Your task to perform on an android device: Open privacy settings Image 0: 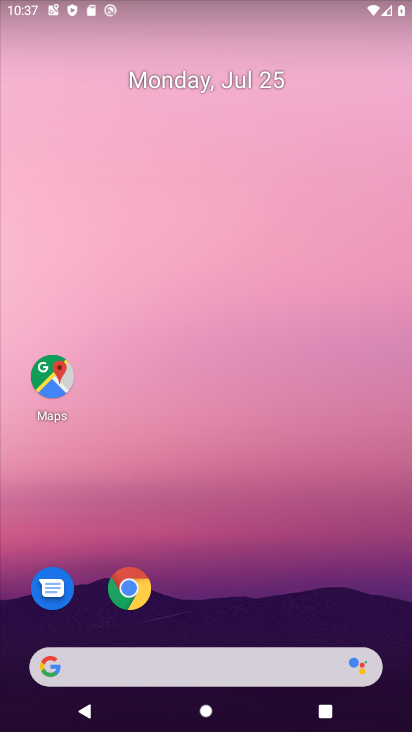
Step 0: drag from (335, 638) to (335, 128)
Your task to perform on an android device: Open privacy settings Image 1: 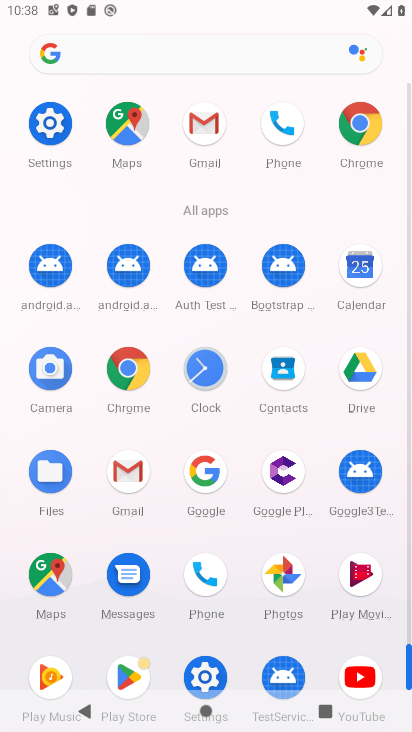
Step 1: click (215, 682)
Your task to perform on an android device: Open privacy settings Image 2: 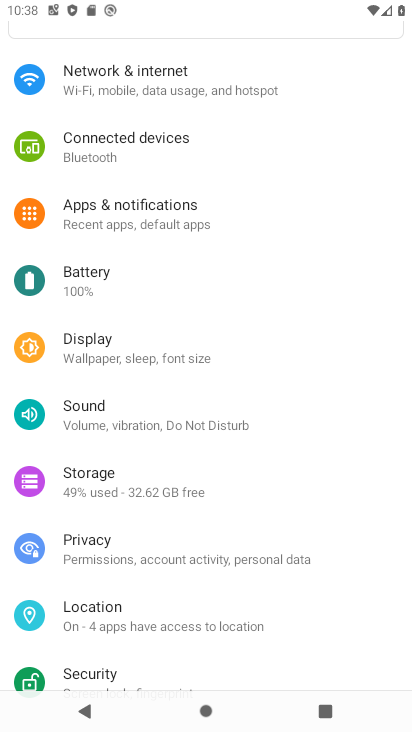
Step 2: click (120, 552)
Your task to perform on an android device: Open privacy settings Image 3: 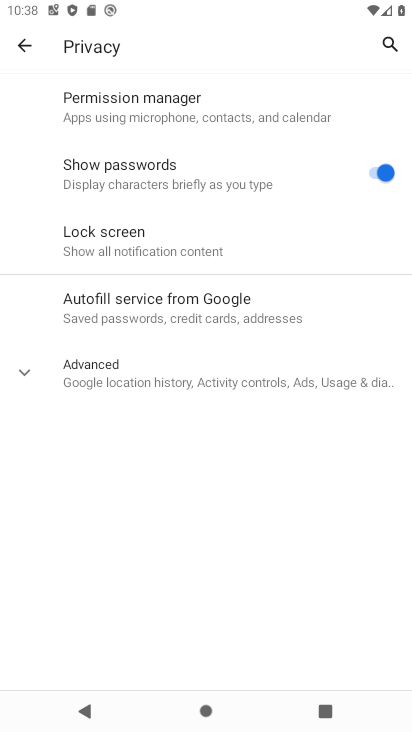
Step 3: task complete